Your task to perform on an android device: open chrome privacy settings Image 0: 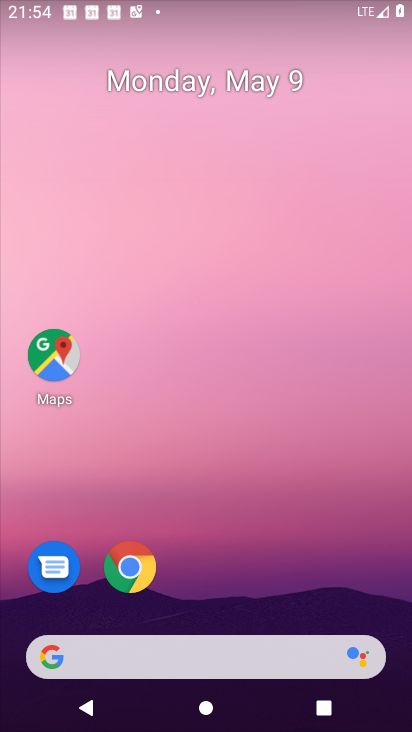
Step 0: drag from (189, 561) to (245, 258)
Your task to perform on an android device: open chrome privacy settings Image 1: 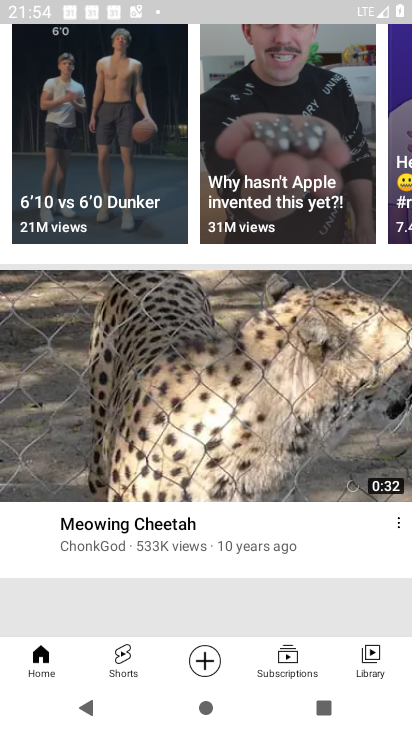
Step 1: drag from (272, 210) to (300, 125)
Your task to perform on an android device: open chrome privacy settings Image 2: 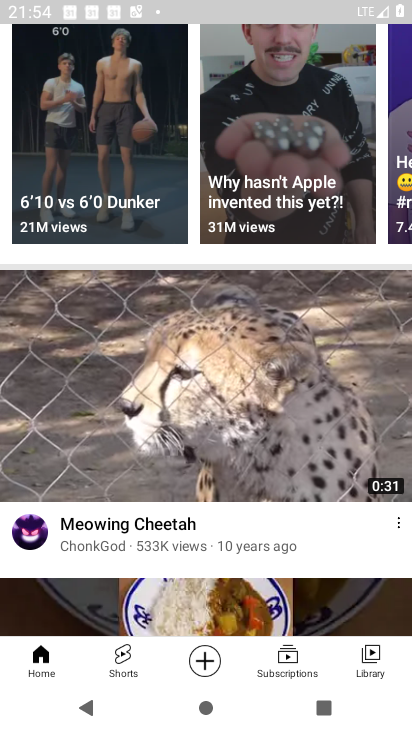
Step 2: drag from (280, 142) to (230, 360)
Your task to perform on an android device: open chrome privacy settings Image 3: 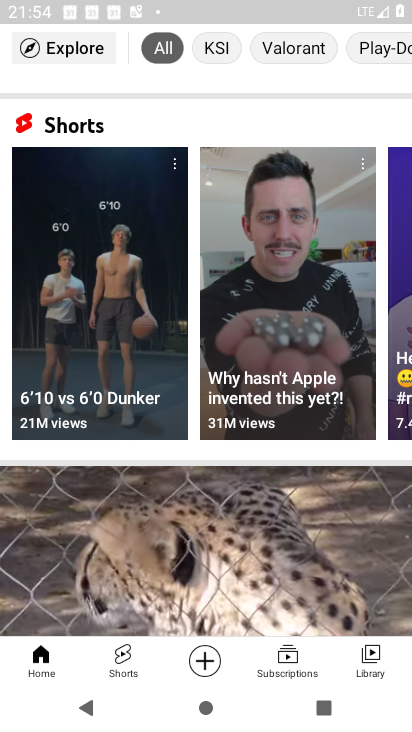
Step 3: drag from (275, 569) to (369, 202)
Your task to perform on an android device: open chrome privacy settings Image 4: 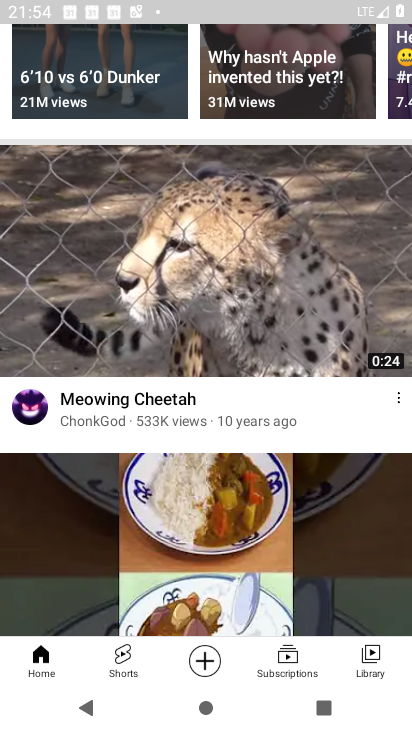
Step 4: press home button
Your task to perform on an android device: open chrome privacy settings Image 5: 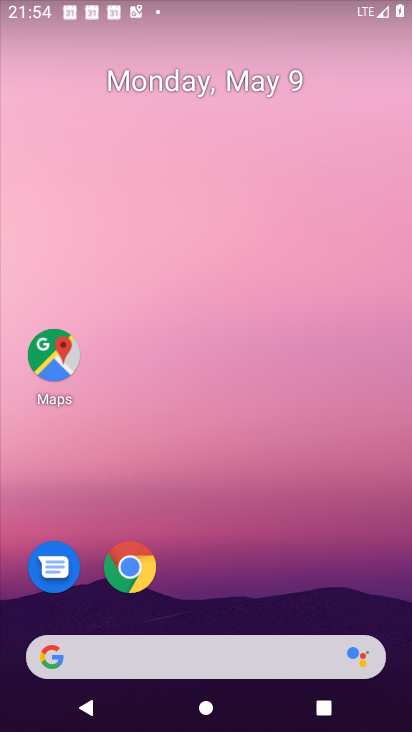
Step 5: click (134, 572)
Your task to perform on an android device: open chrome privacy settings Image 6: 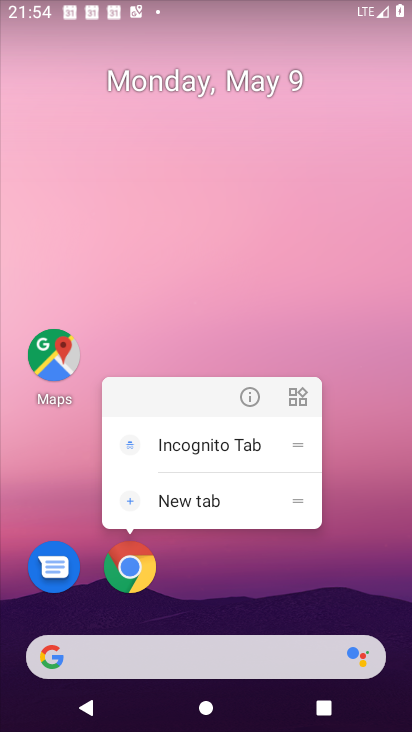
Step 6: click (250, 386)
Your task to perform on an android device: open chrome privacy settings Image 7: 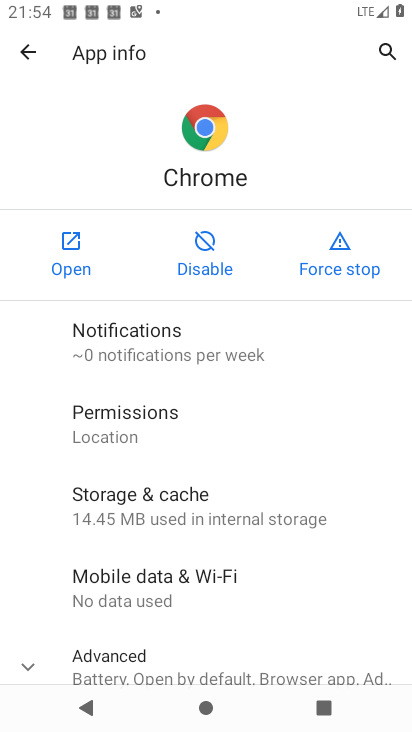
Step 7: click (73, 253)
Your task to perform on an android device: open chrome privacy settings Image 8: 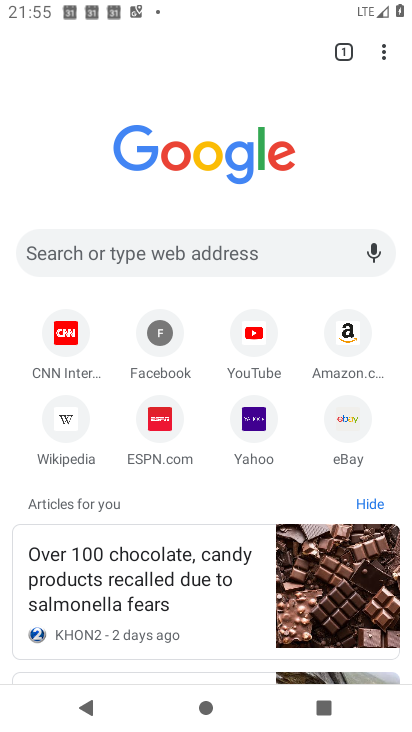
Step 8: click (394, 48)
Your task to perform on an android device: open chrome privacy settings Image 9: 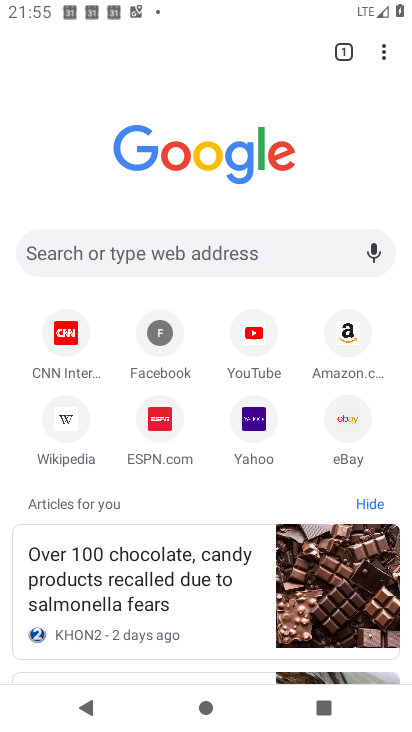
Step 9: drag from (385, 62) to (230, 439)
Your task to perform on an android device: open chrome privacy settings Image 10: 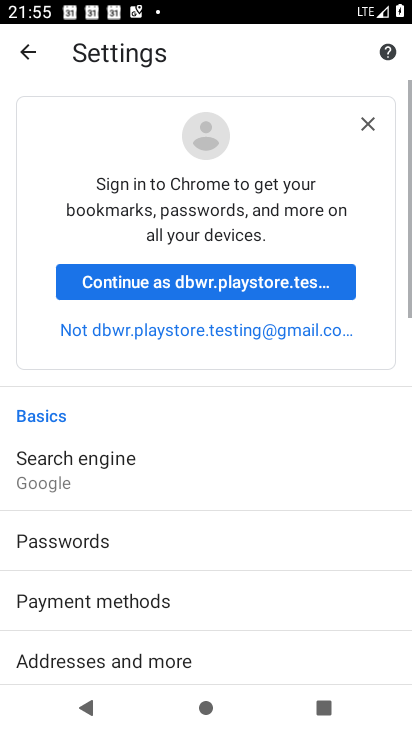
Step 10: drag from (216, 586) to (290, 118)
Your task to perform on an android device: open chrome privacy settings Image 11: 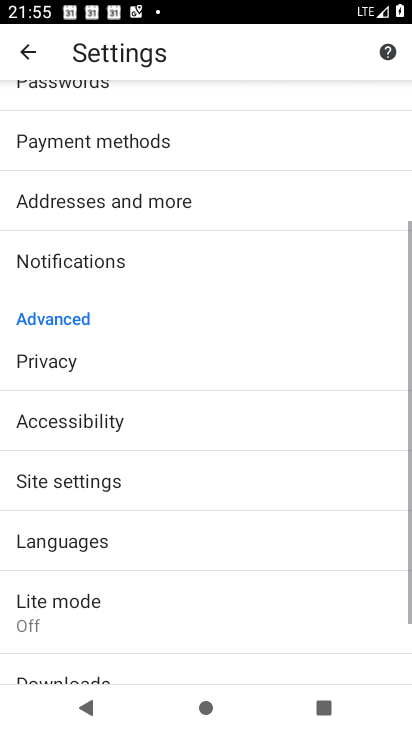
Step 11: drag from (157, 549) to (230, 220)
Your task to perform on an android device: open chrome privacy settings Image 12: 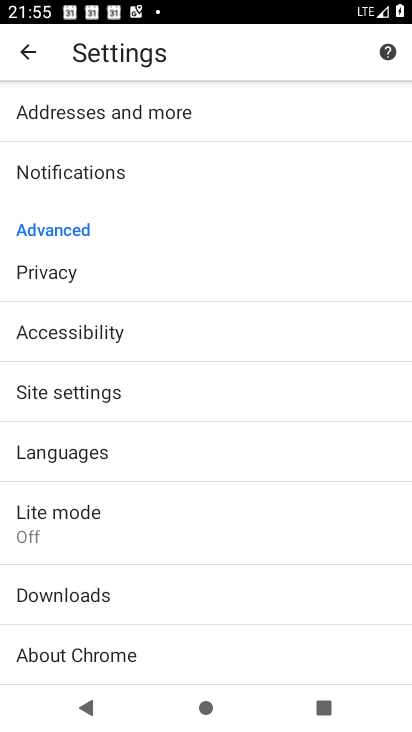
Step 12: drag from (122, 624) to (209, 217)
Your task to perform on an android device: open chrome privacy settings Image 13: 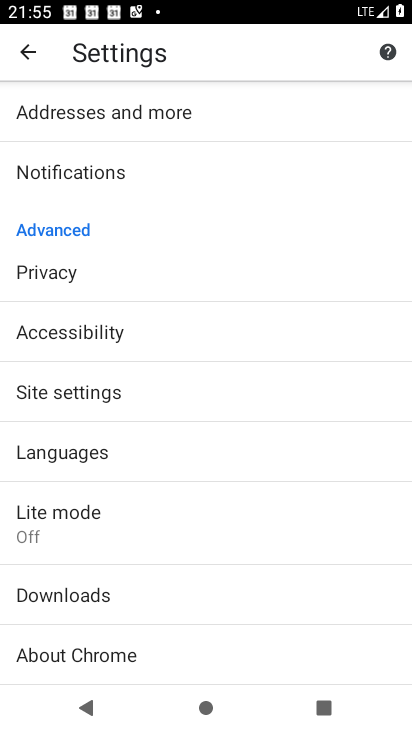
Step 13: click (136, 277)
Your task to perform on an android device: open chrome privacy settings Image 14: 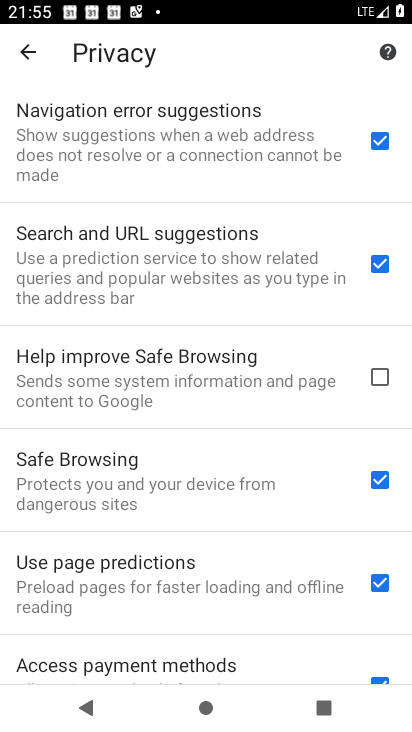
Step 14: task complete